Your task to perform on an android device: Open Google Chrome Image 0: 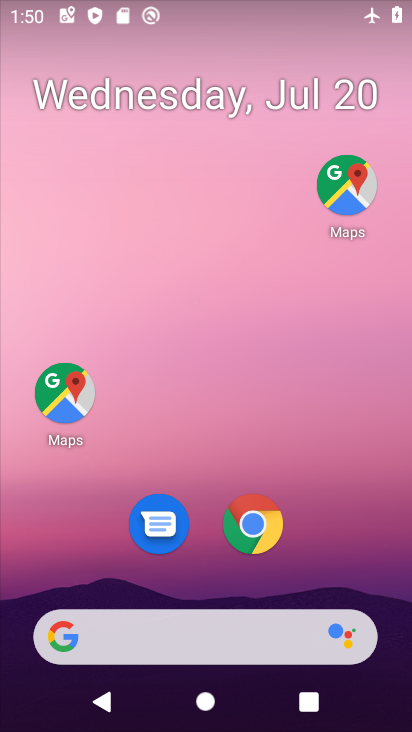
Step 0: click (248, 523)
Your task to perform on an android device: Open Google Chrome Image 1: 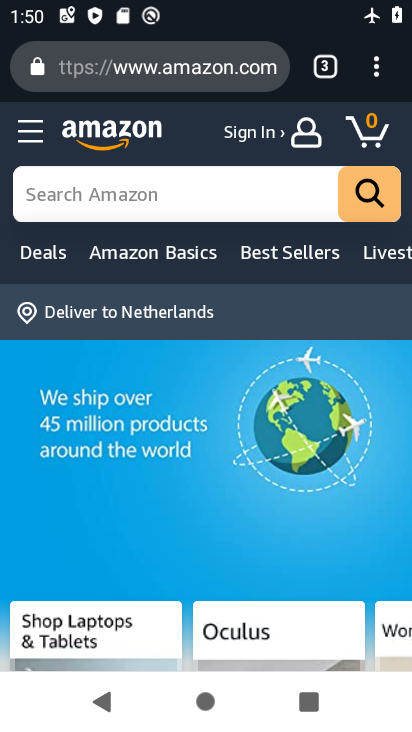
Step 1: task complete